Your task to perform on an android device: add a label to a message in the gmail app Image 0: 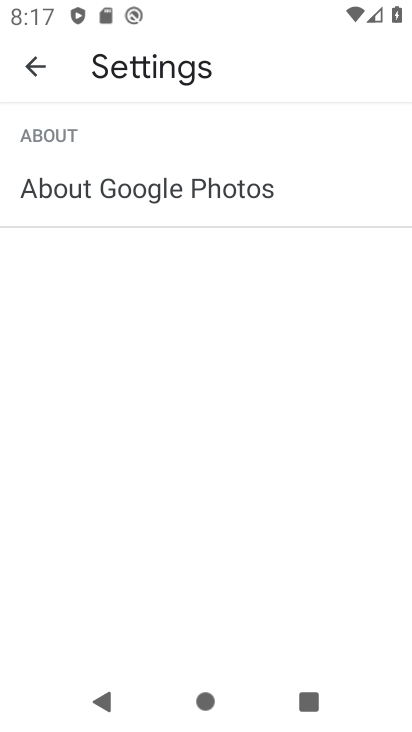
Step 0: press home button
Your task to perform on an android device: add a label to a message in the gmail app Image 1: 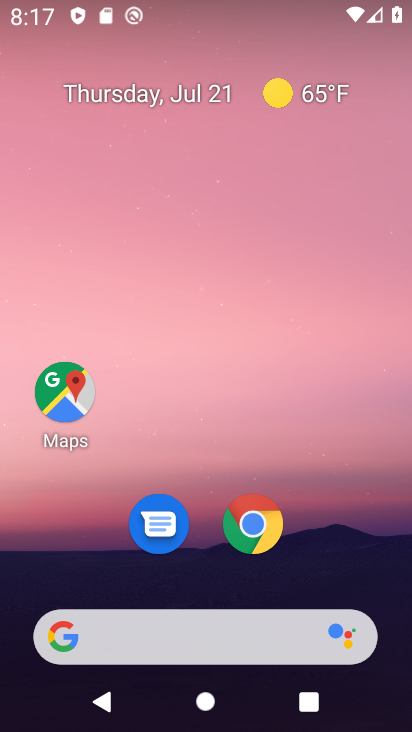
Step 1: drag from (210, 651) to (177, 210)
Your task to perform on an android device: add a label to a message in the gmail app Image 2: 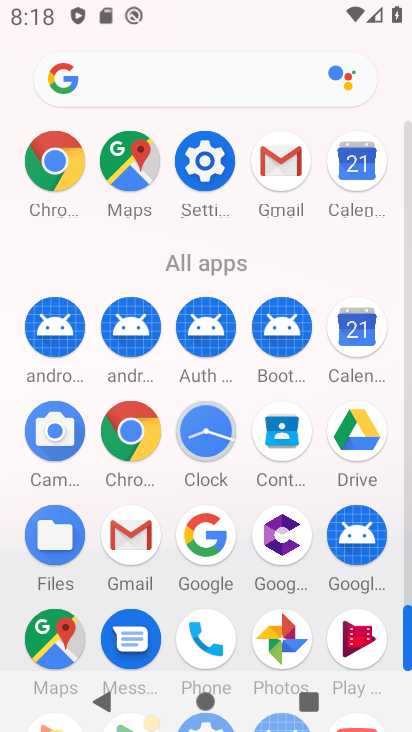
Step 2: click (143, 525)
Your task to perform on an android device: add a label to a message in the gmail app Image 3: 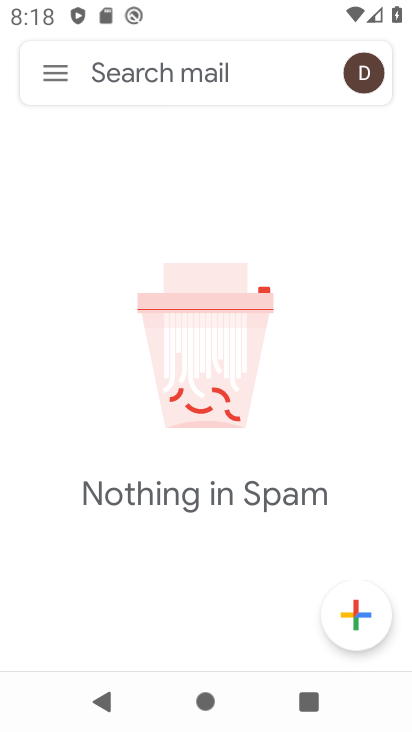
Step 3: click (46, 64)
Your task to perform on an android device: add a label to a message in the gmail app Image 4: 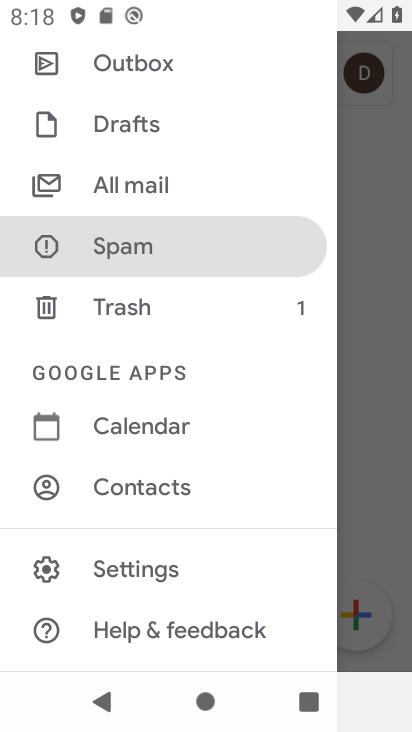
Step 4: click (136, 197)
Your task to perform on an android device: add a label to a message in the gmail app Image 5: 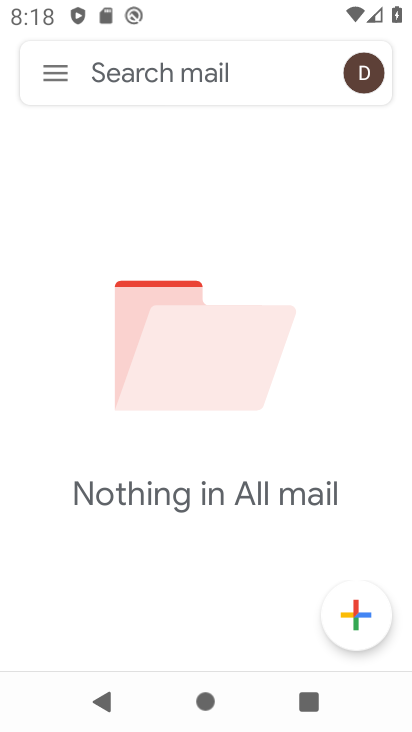
Step 5: task complete